Your task to perform on an android device: Search for Mexican restaurants on Maps Image 0: 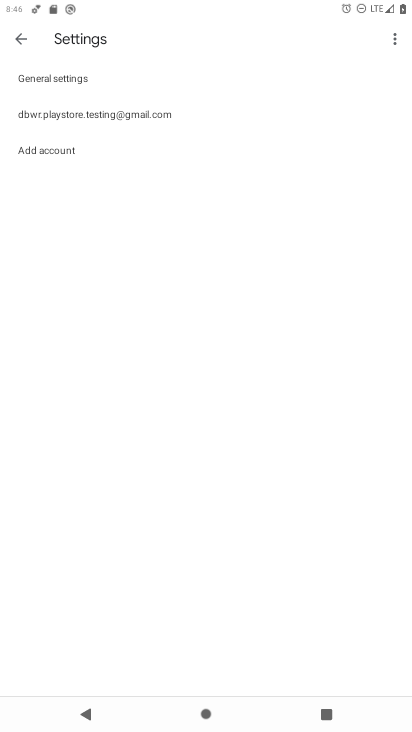
Step 0: press home button
Your task to perform on an android device: Search for Mexican restaurants on Maps Image 1: 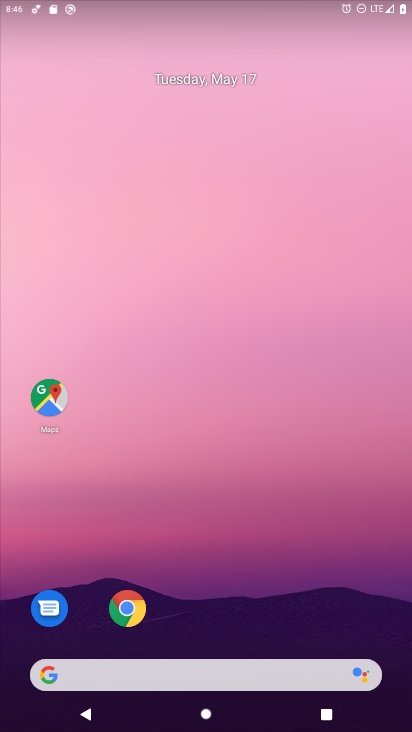
Step 1: click (57, 387)
Your task to perform on an android device: Search for Mexican restaurants on Maps Image 2: 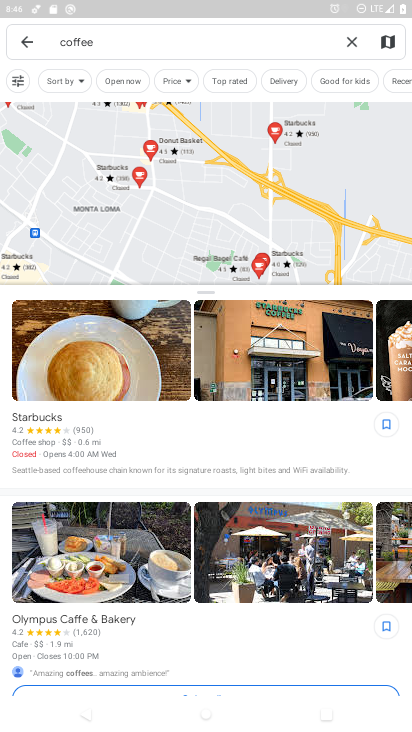
Step 2: click (354, 43)
Your task to perform on an android device: Search for Mexican restaurants on Maps Image 3: 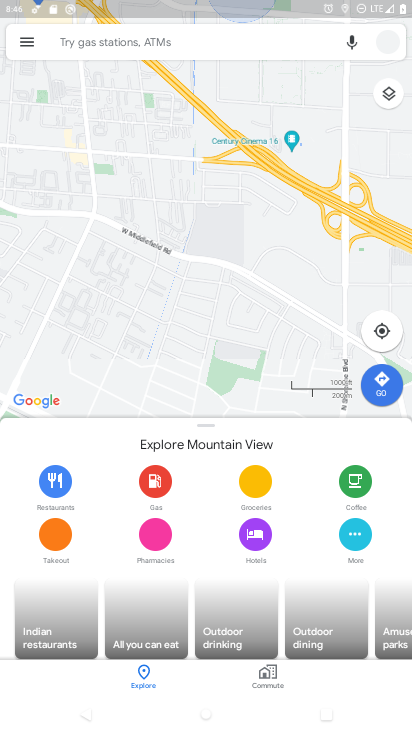
Step 3: click (175, 43)
Your task to perform on an android device: Search for Mexican restaurants on Maps Image 4: 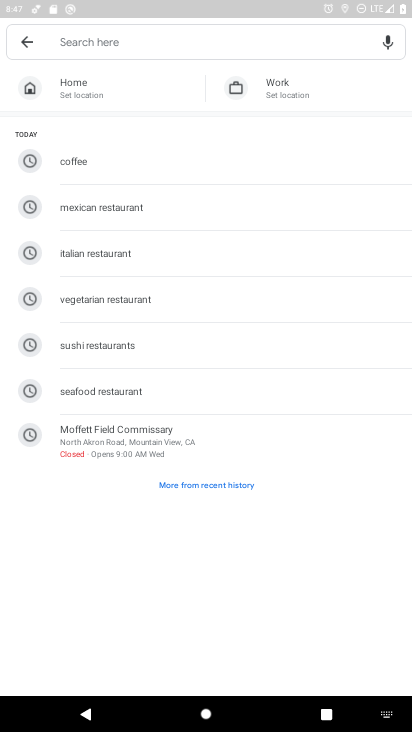
Step 4: type "mexican restaurants"
Your task to perform on an android device: Search for Mexican restaurants on Maps Image 5: 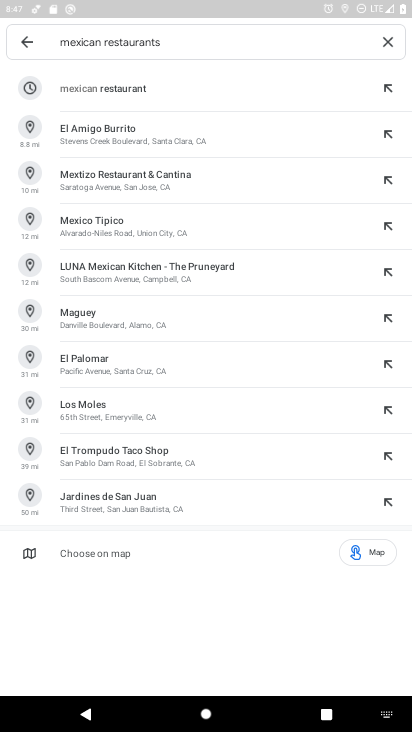
Step 5: click (114, 88)
Your task to perform on an android device: Search for Mexican restaurants on Maps Image 6: 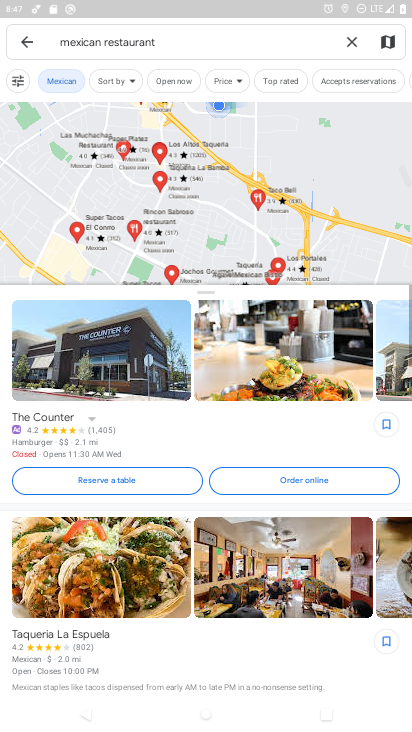
Step 6: task complete